Your task to perform on an android device: change the clock style Image 0: 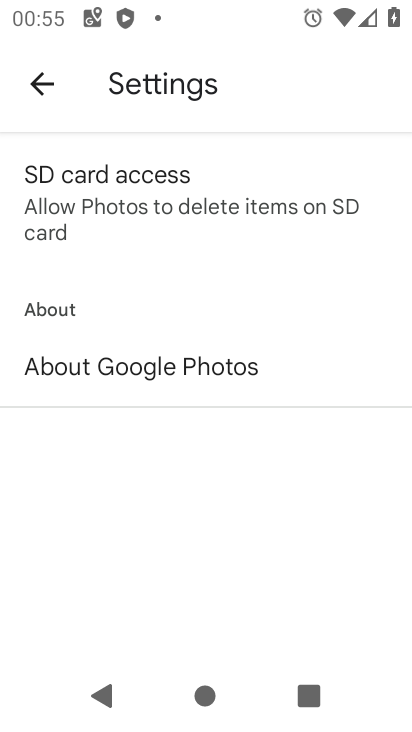
Step 0: press home button
Your task to perform on an android device: change the clock style Image 1: 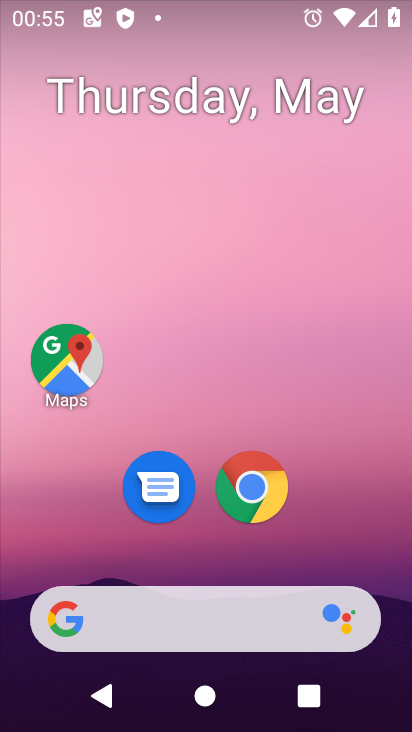
Step 1: drag from (342, 555) to (321, 8)
Your task to perform on an android device: change the clock style Image 2: 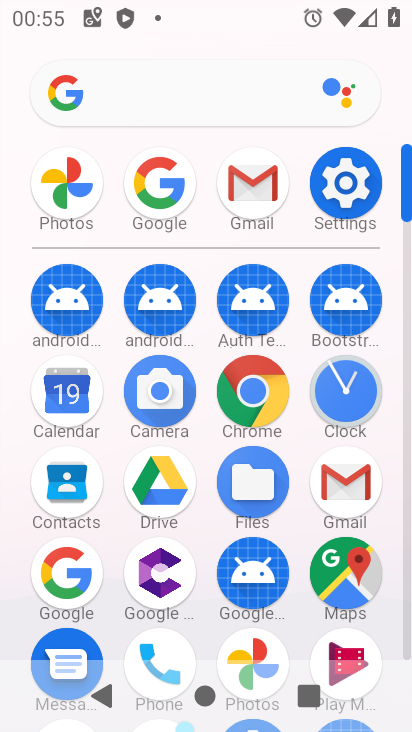
Step 2: click (345, 395)
Your task to perform on an android device: change the clock style Image 3: 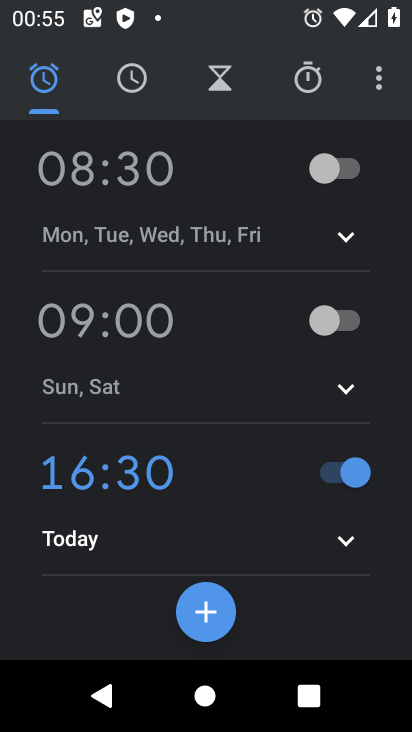
Step 3: click (378, 80)
Your task to perform on an android device: change the clock style Image 4: 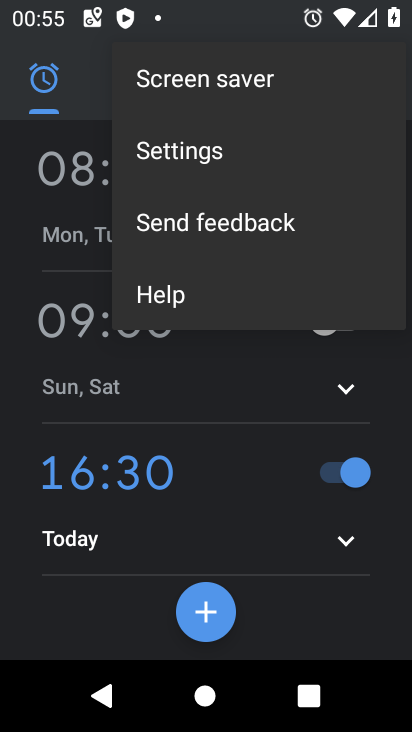
Step 4: click (185, 160)
Your task to perform on an android device: change the clock style Image 5: 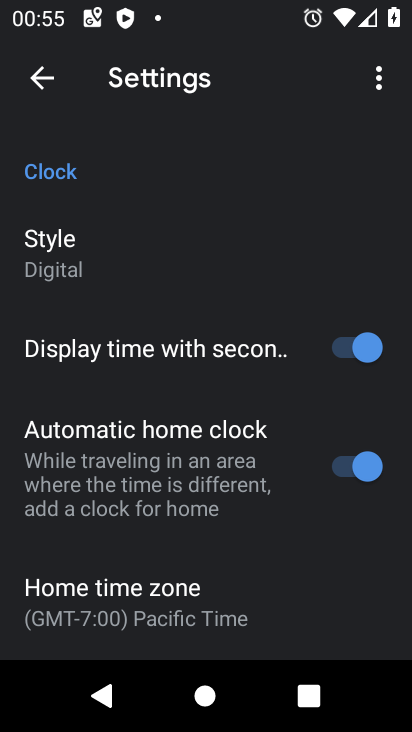
Step 5: click (48, 268)
Your task to perform on an android device: change the clock style Image 6: 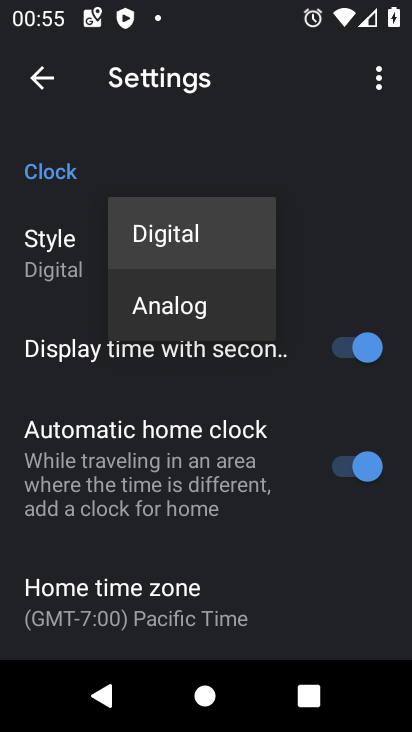
Step 6: click (157, 310)
Your task to perform on an android device: change the clock style Image 7: 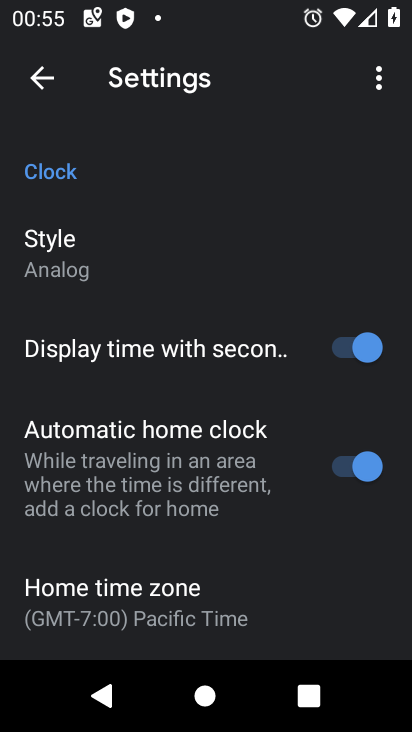
Step 7: task complete